Your task to perform on an android device: choose inbox layout in the gmail app Image 0: 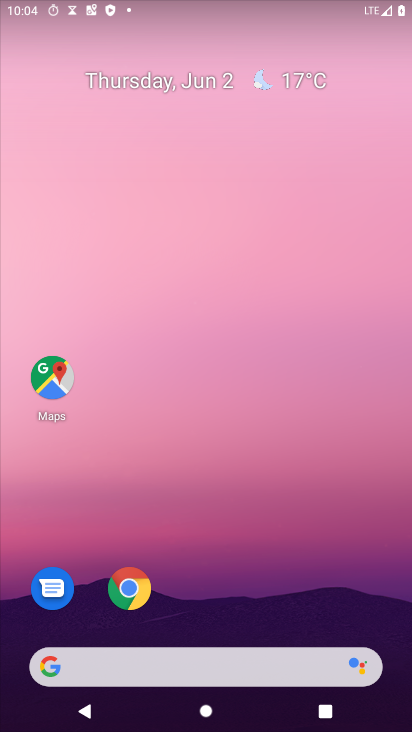
Step 0: drag from (254, 628) to (249, 155)
Your task to perform on an android device: choose inbox layout in the gmail app Image 1: 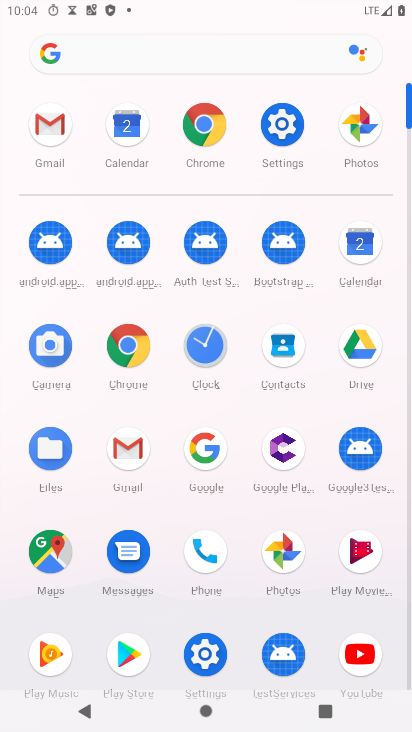
Step 1: click (131, 443)
Your task to perform on an android device: choose inbox layout in the gmail app Image 2: 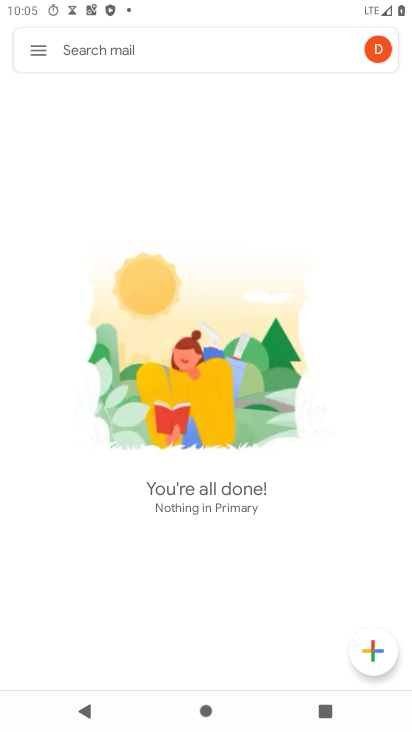
Step 2: click (27, 53)
Your task to perform on an android device: choose inbox layout in the gmail app Image 3: 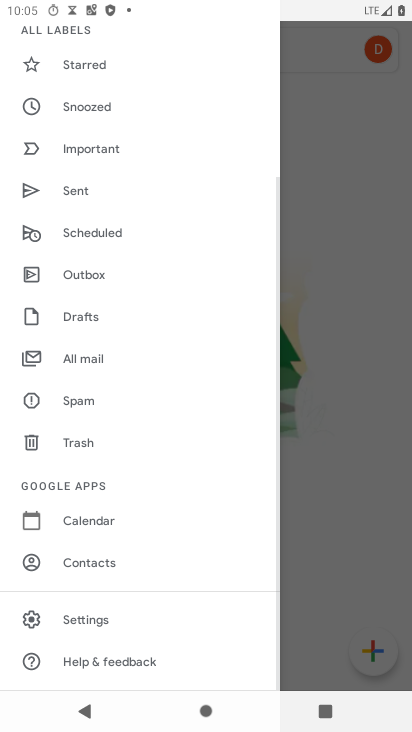
Step 3: click (75, 616)
Your task to perform on an android device: choose inbox layout in the gmail app Image 4: 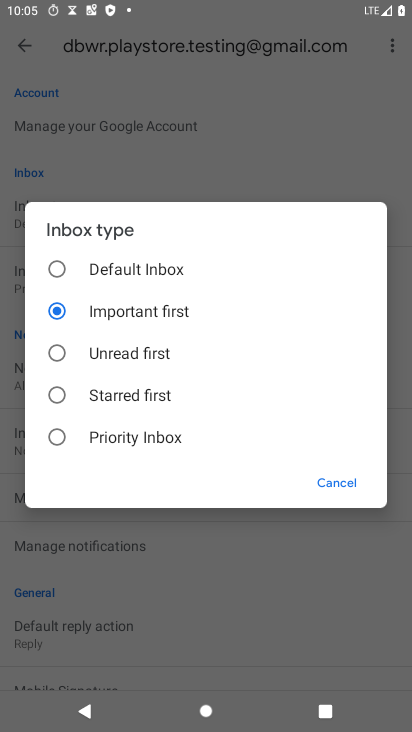
Step 4: click (63, 431)
Your task to perform on an android device: choose inbox layout in the gmail app Image 5: 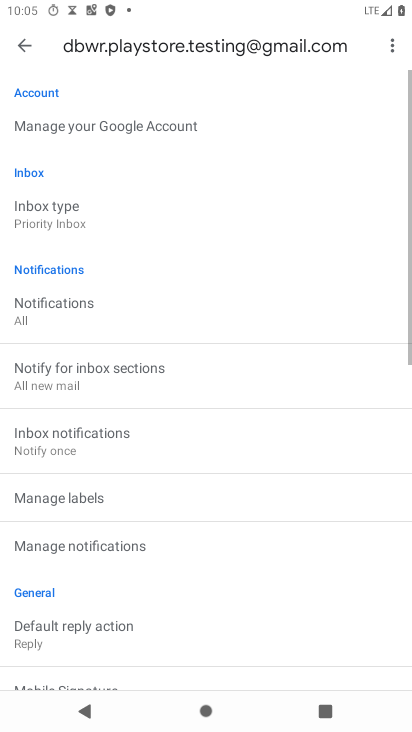
Step 5: task complete